Your task to perform on an android device: Search for asus zenbook on bestbuy, select the first entry, and add it to the cart. Image 0: 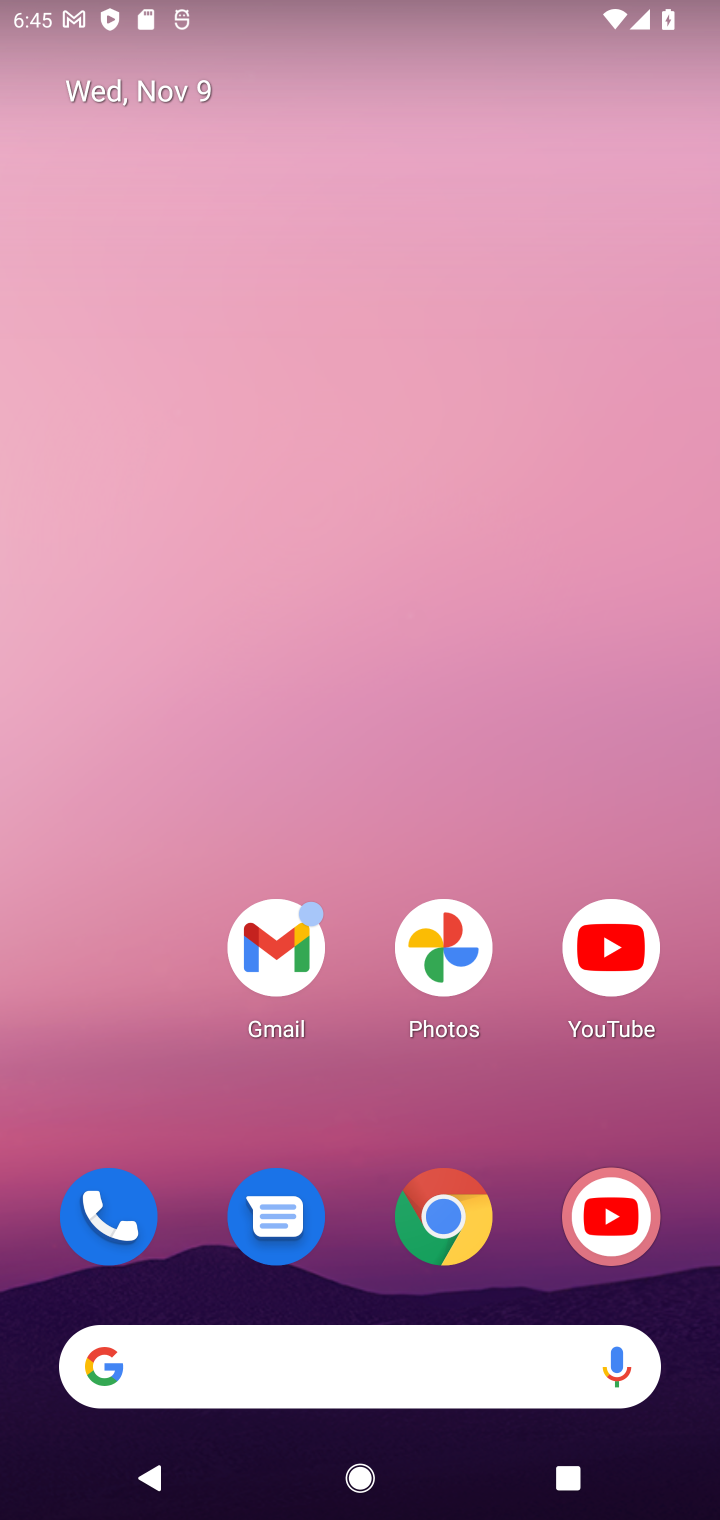
Step 0: drag from (374, 1015) to (505, 45)
Your task to perform on an android device: Search for asus zenbook on bestbuy, select the first entry, and add it to the cart. Image 1: 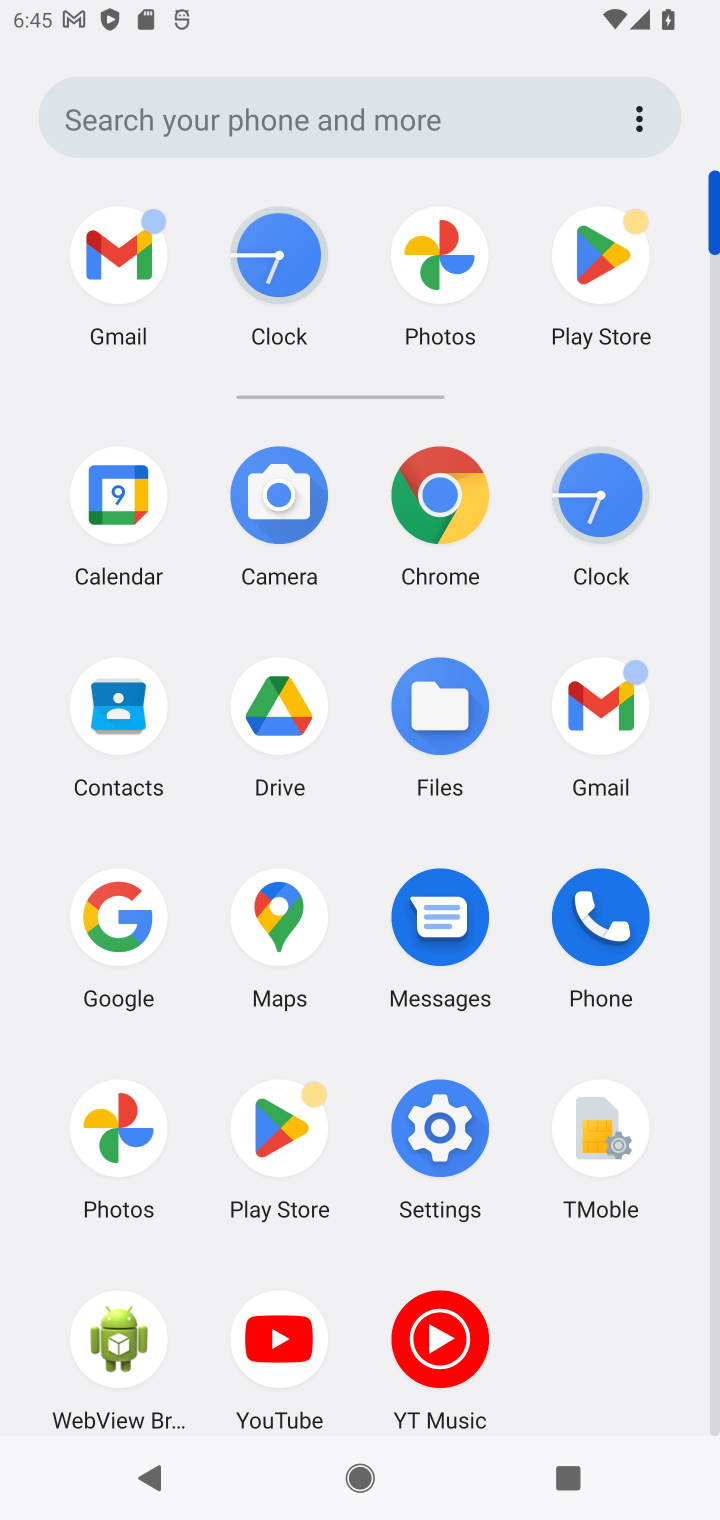
Step 1: click (433, 483)
Your task to perform on an android device: Search for asus zenbook on bestbuy, select the first entry, and add it to the cart. Image 2: 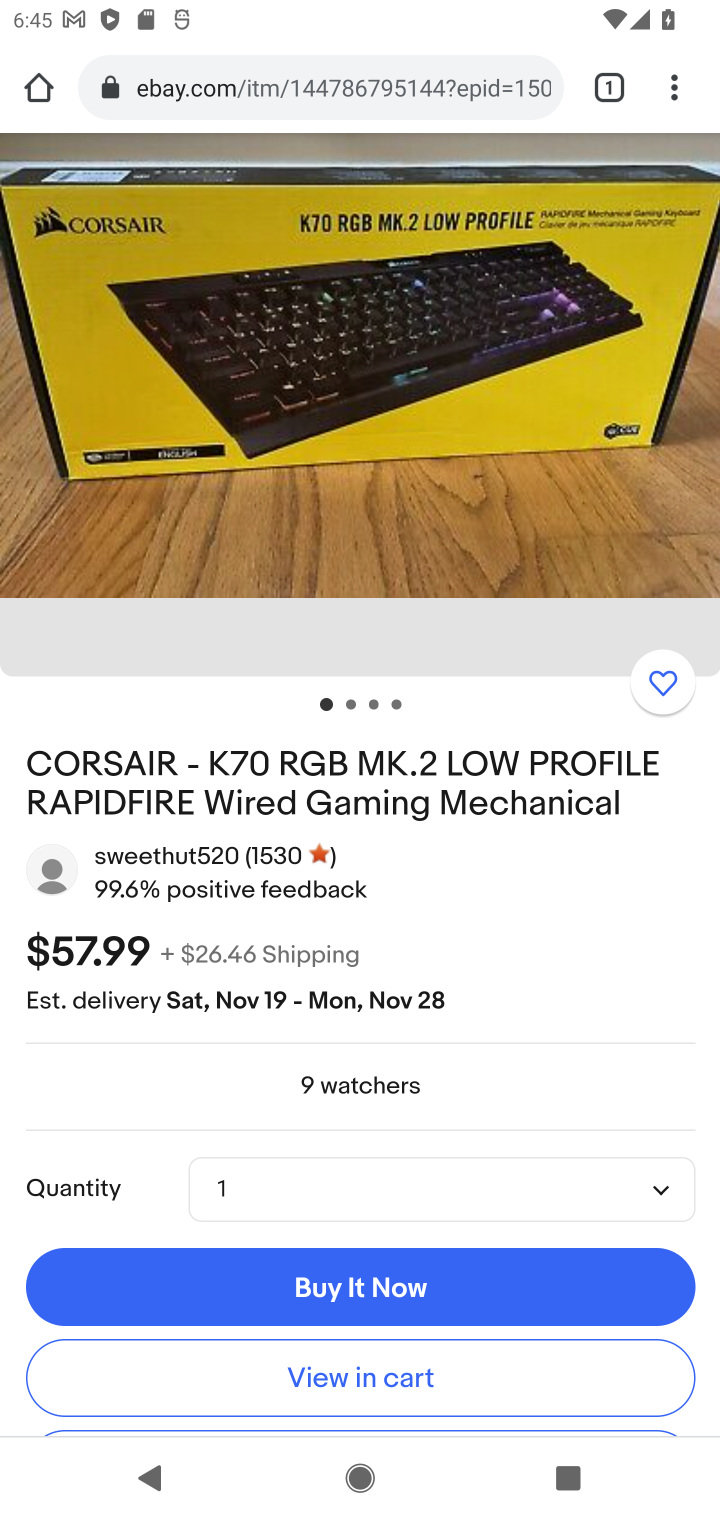
Step 2: click (396, 89)
Your task to perform on an android device: Search for asus zenbook on bestbuy, select the first entry, and add it to the cart. Image 3: 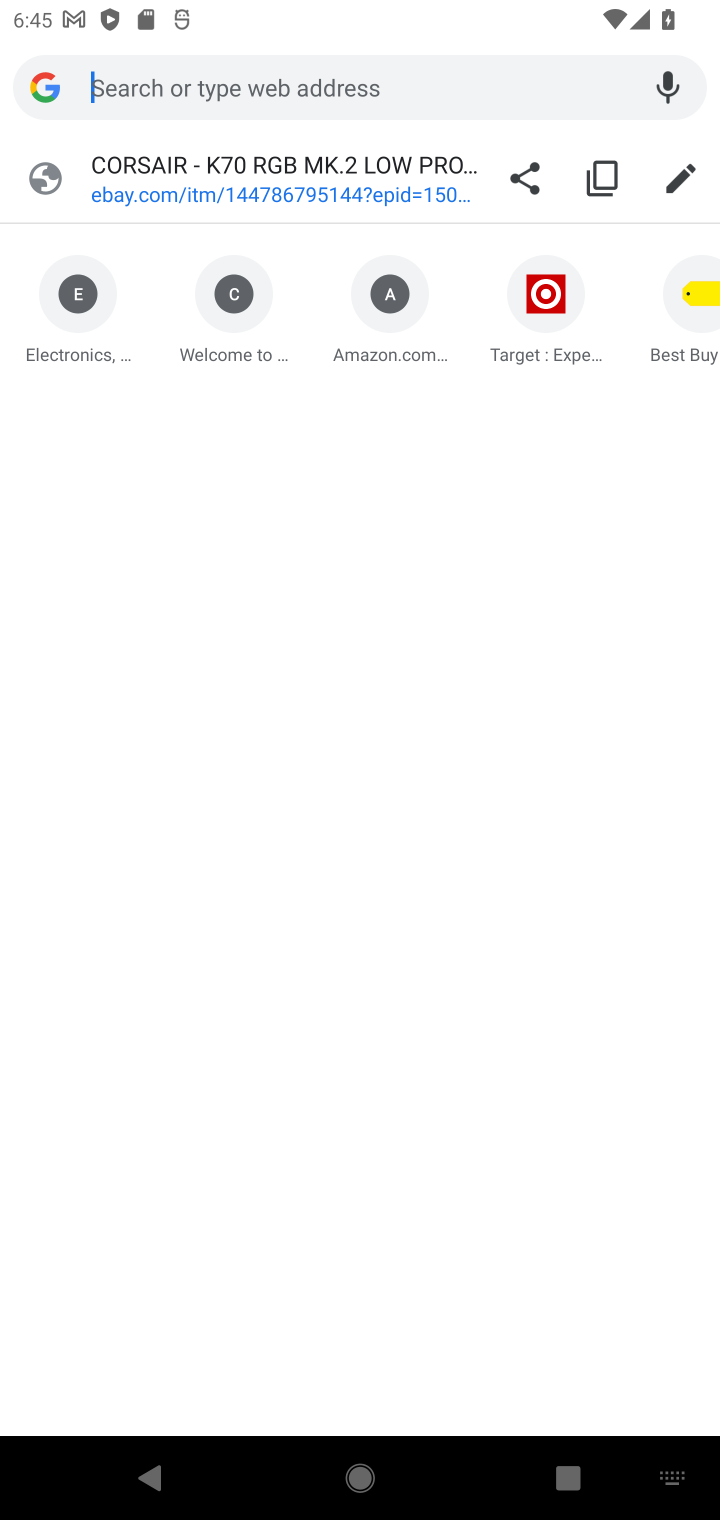
Step 3: type "bestbuy.com"
Your task to perform on an android device: Search for asus zenbook on bestbuy, select the first entry, and add it to the cart. Image 4: 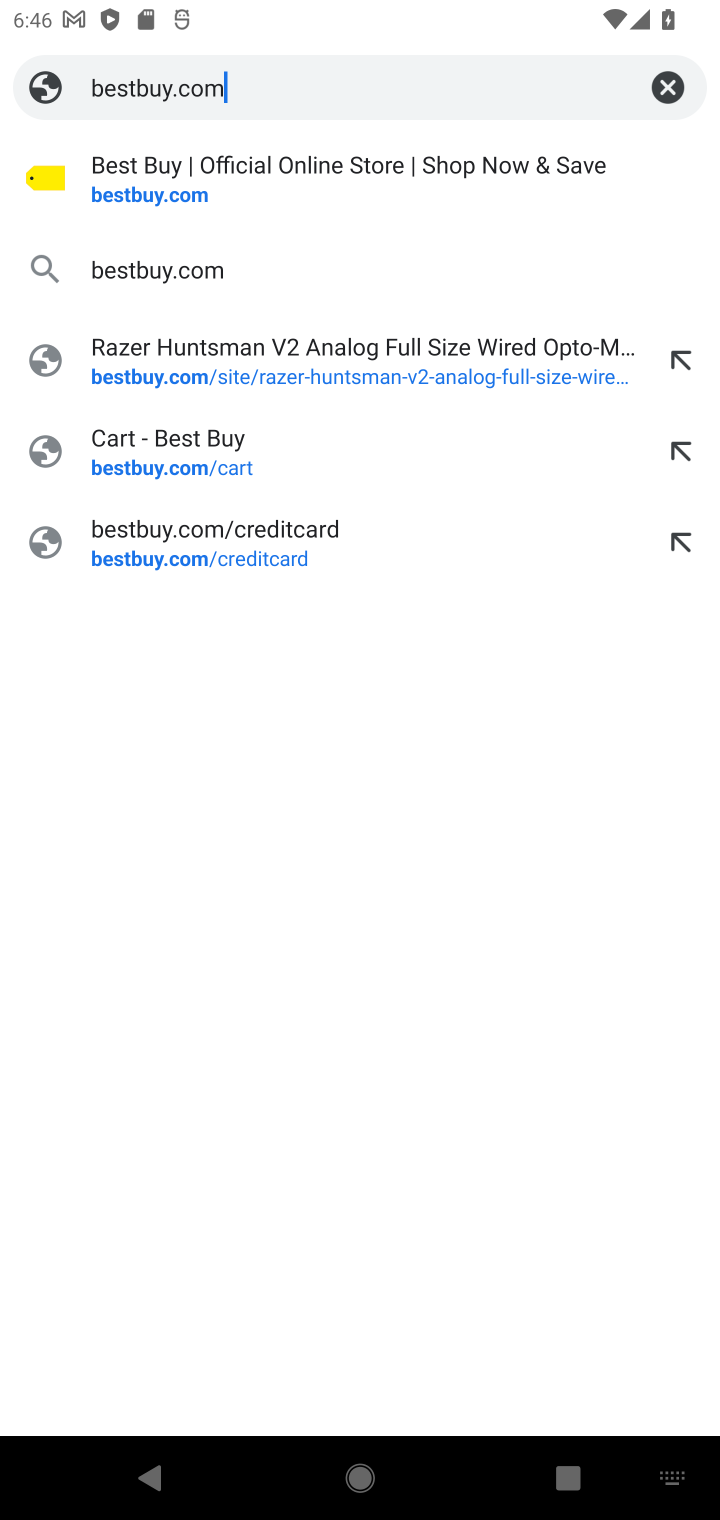
Step 4: press enter
Your task to perform on an android device: Search for asus zenbook on bestbuy, select the first entry, and add it to the cart. Image 5: 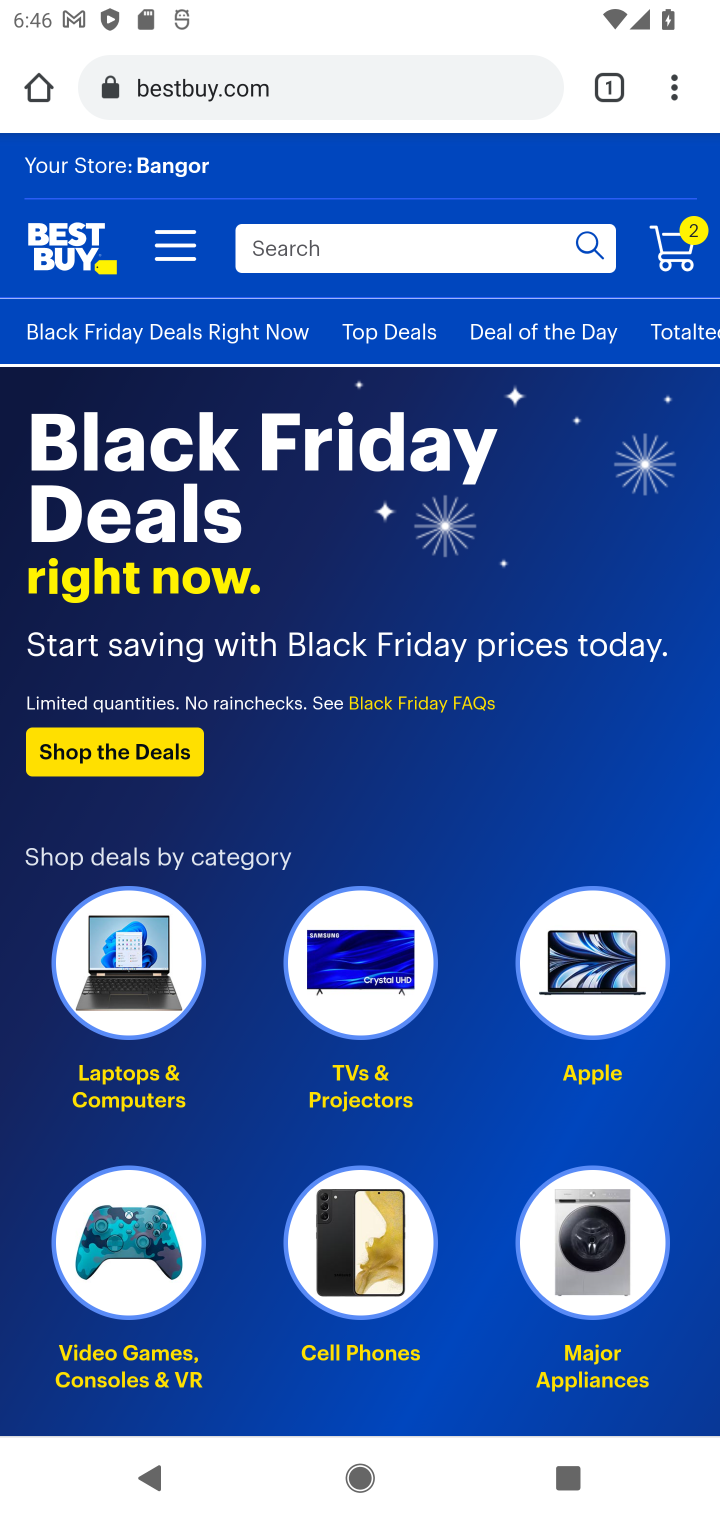
Step 5: click (424, 248)
Your task to perform on an android device: Search for asus zenbook on bestbuy, select the first entry, and add it to the cart. Image 6: 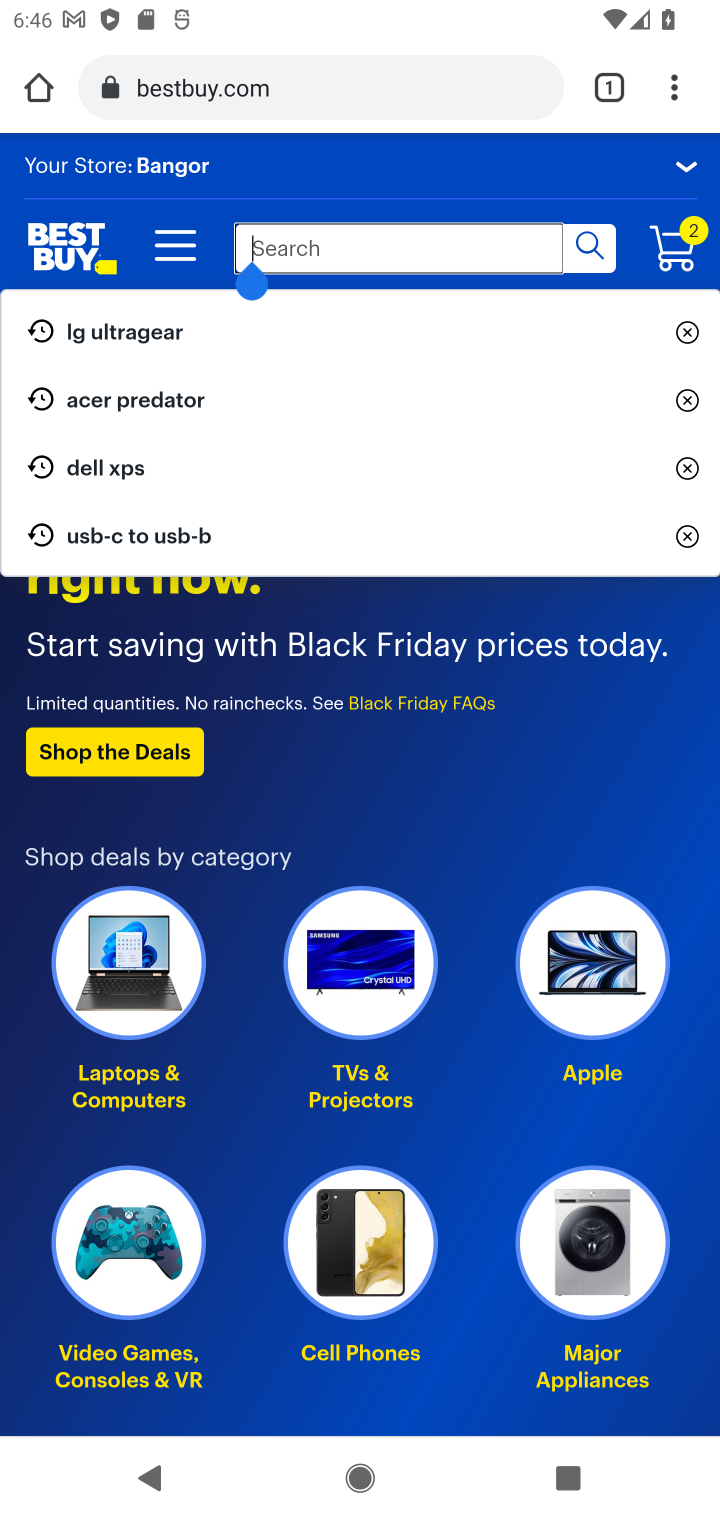
Step 6: type "asus zenbook "
Your task to perform on an android device: Search for asus zenbook on bestbuy, select the first entry, and add it to the cart. Image 7: 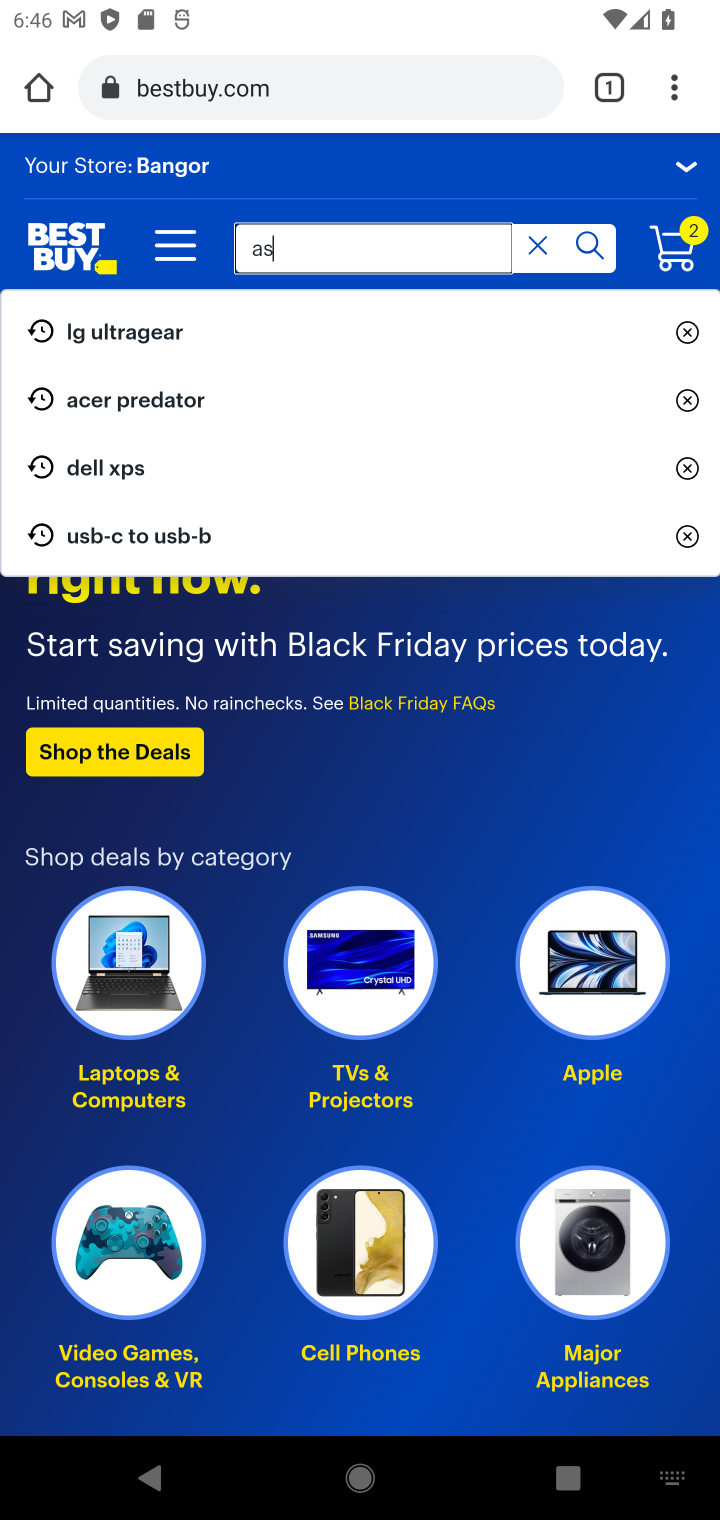
Step 7: press enter
Your task to perform on an android device: Search for asus zenbook on bestbuy, select the first entry, and add it to the cart. Image 8: 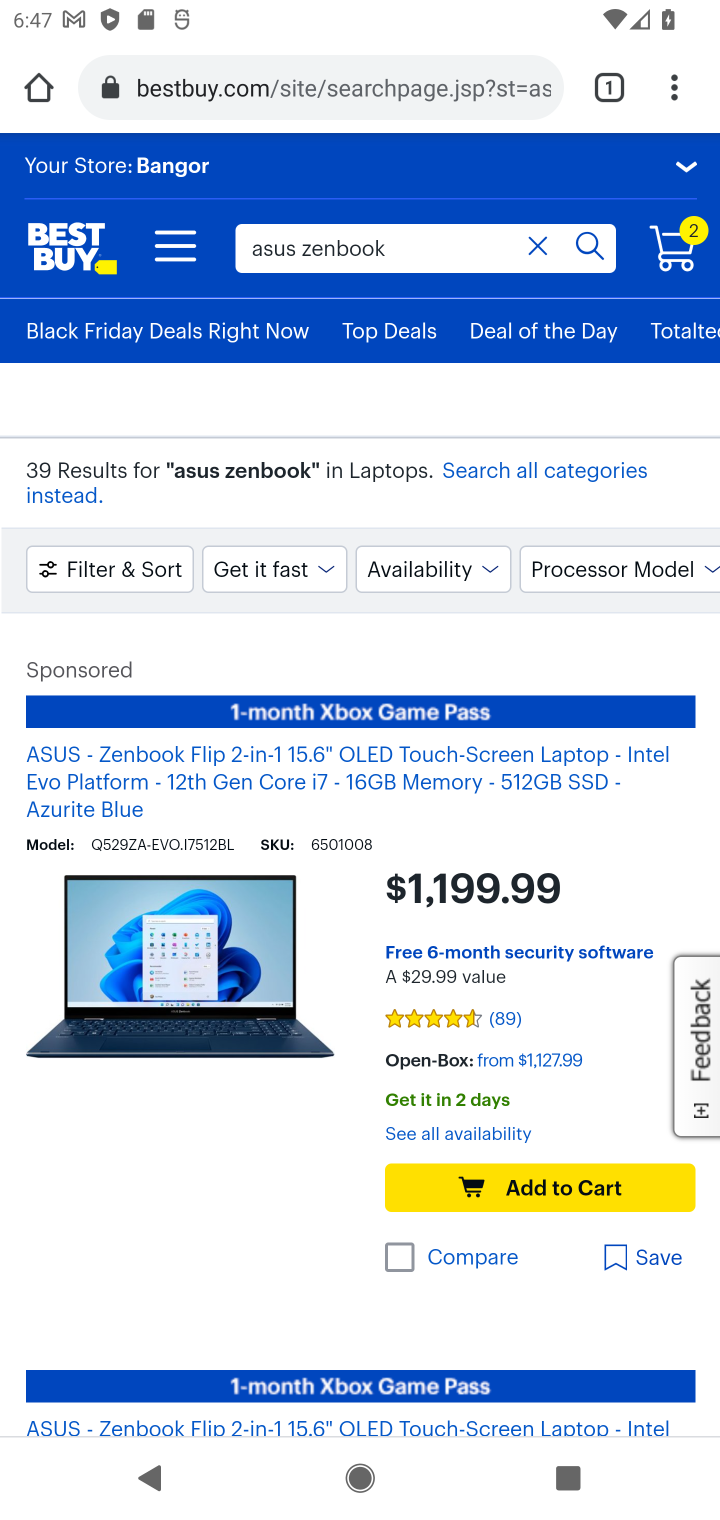
Step 8: drag from (499, 963) to (525, 733)
Your task to perform on an android device: Search for asus zenbook on bestbuy, select the first entry, and add it to the cart. Image 9: 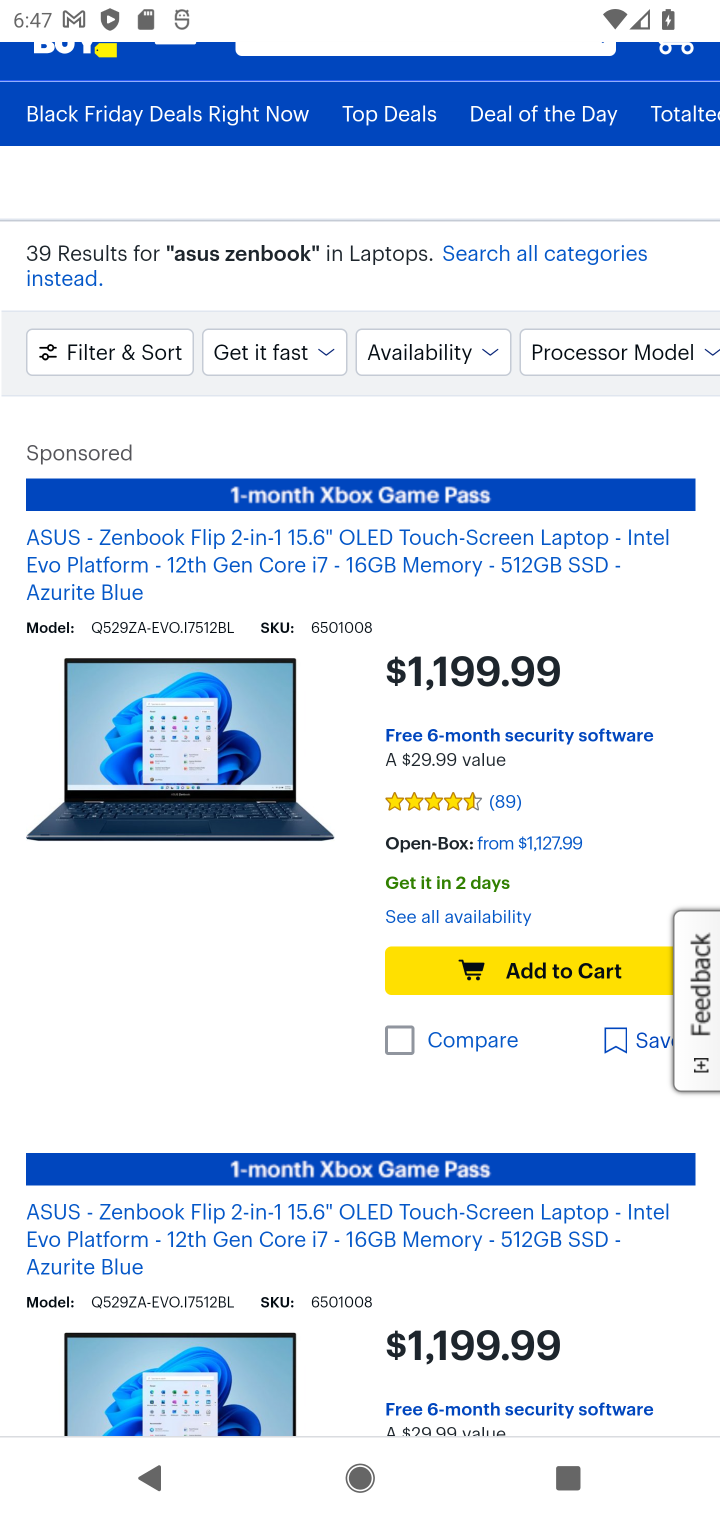
Step 9: click (535, 948)
Your task to perform on an android device: Search for asus zenbook on bestbuy, select the first entry, and add it to the cart. Image 10: 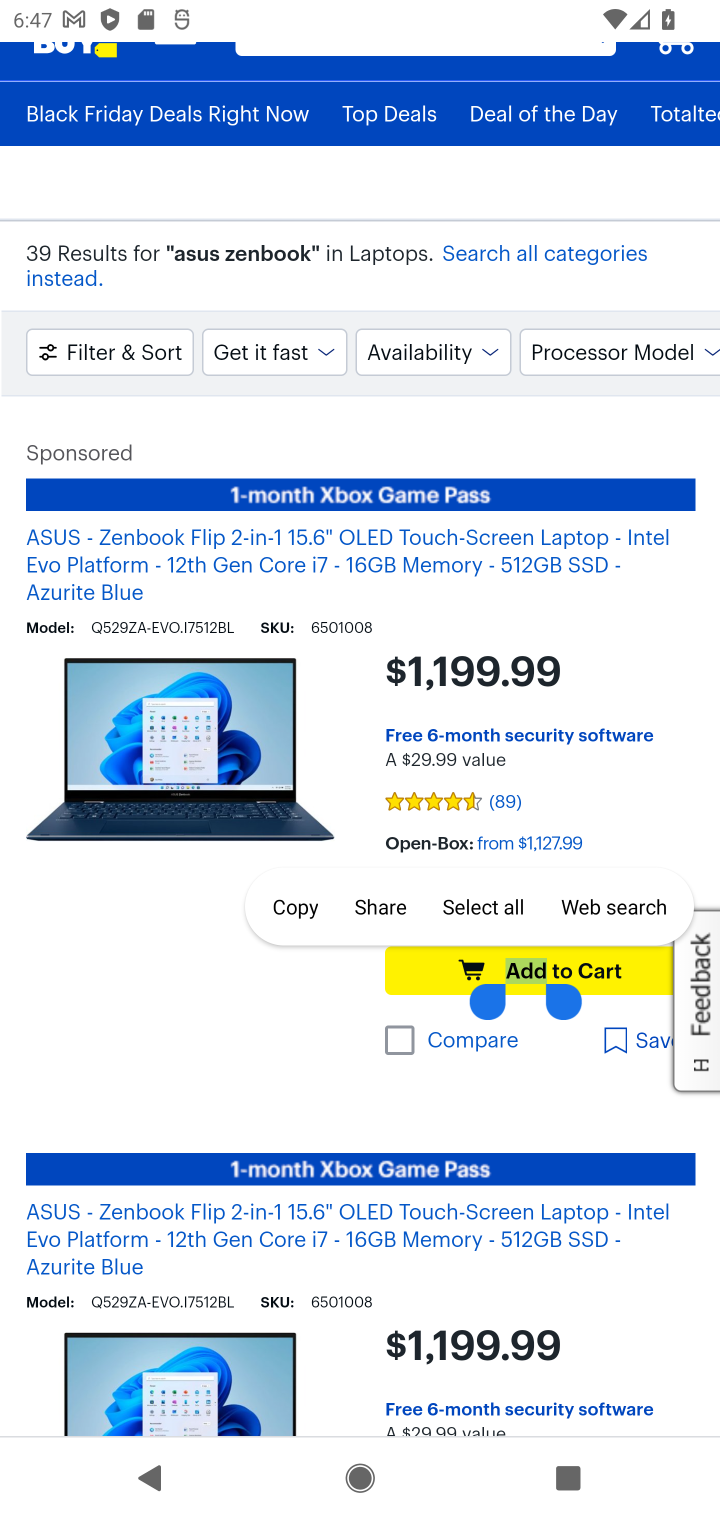
Step 10: click (594, 970)
Your task to perform on an android device: Search for asus zenbook on bestbuy, select the first entry, and add it to the cart. Image 11: 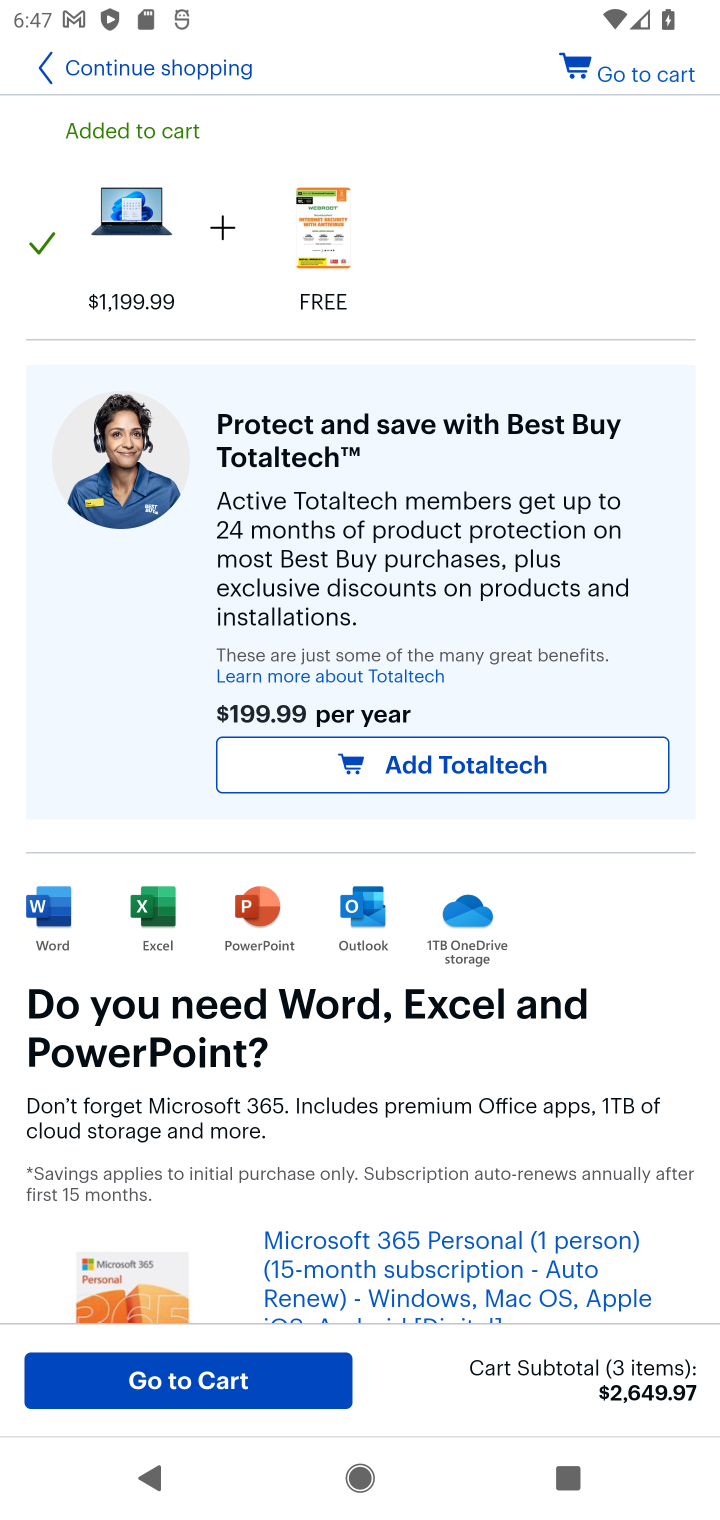
Step 11: task complete